Your task to perform on an android device: open app "eBay: The shopping marketplace" (install if not already installed) Image 0: 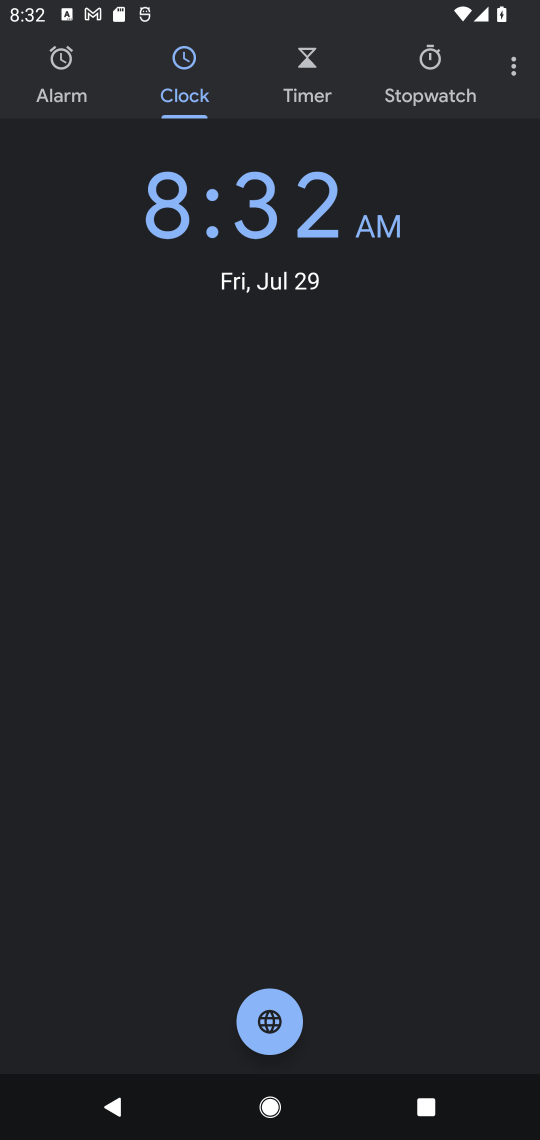
Step 0: press back button
Your task to perform on an android device: open app "eBay: The shopping marketplace" (install if not already installed) Image 1: 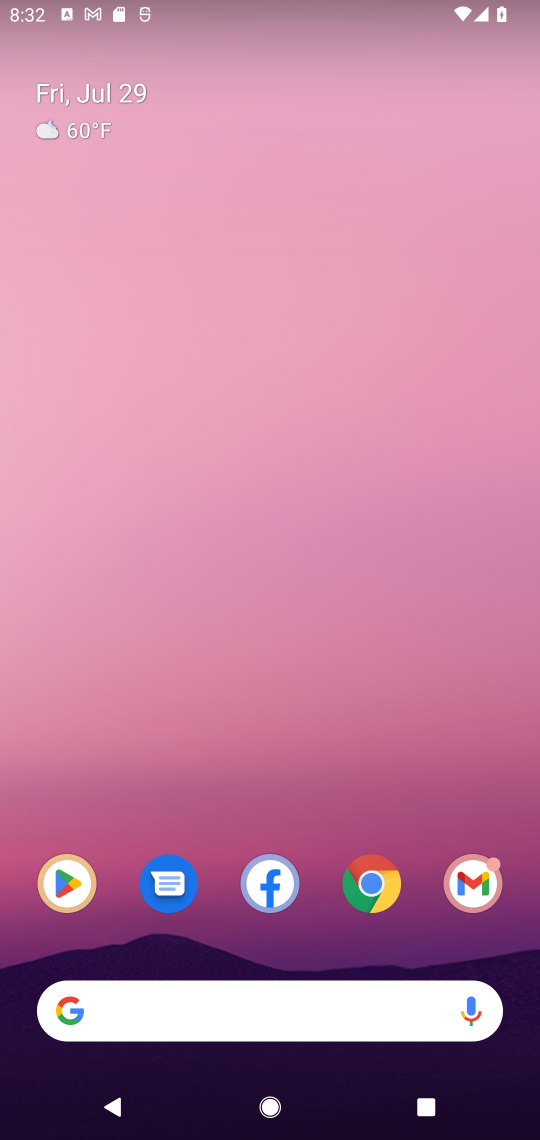
Step 1: click (72, 876)
Your task to perform on an android device: open app "eBay: The shopping marketplace" (install if not already installed) Image 2: 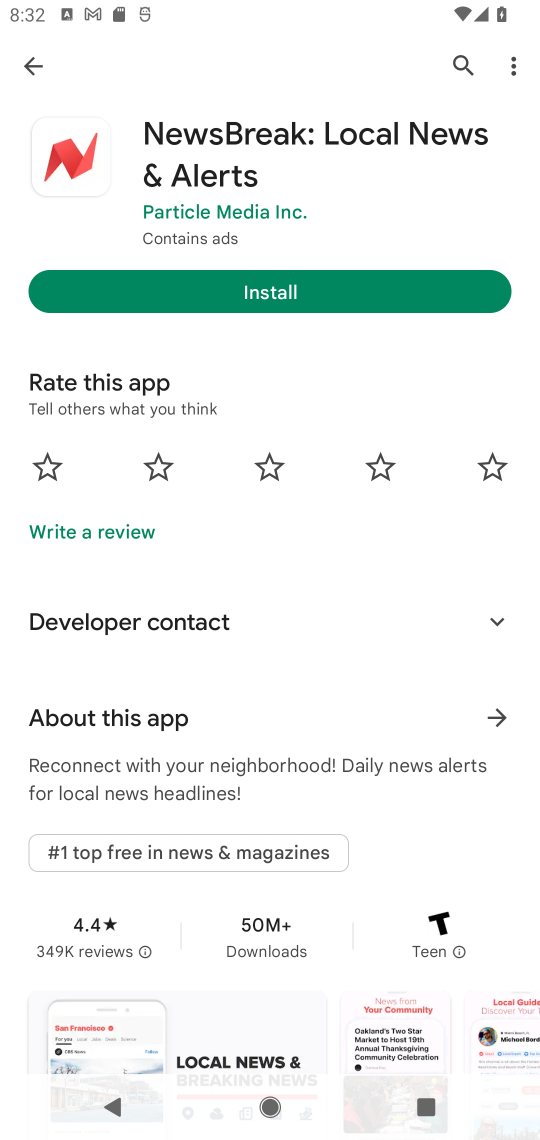
Step 2: click (469, 74)
Your task to perform on an android device: open app "eBay: The shopping marketplace" (install if not already installed) Image 3: 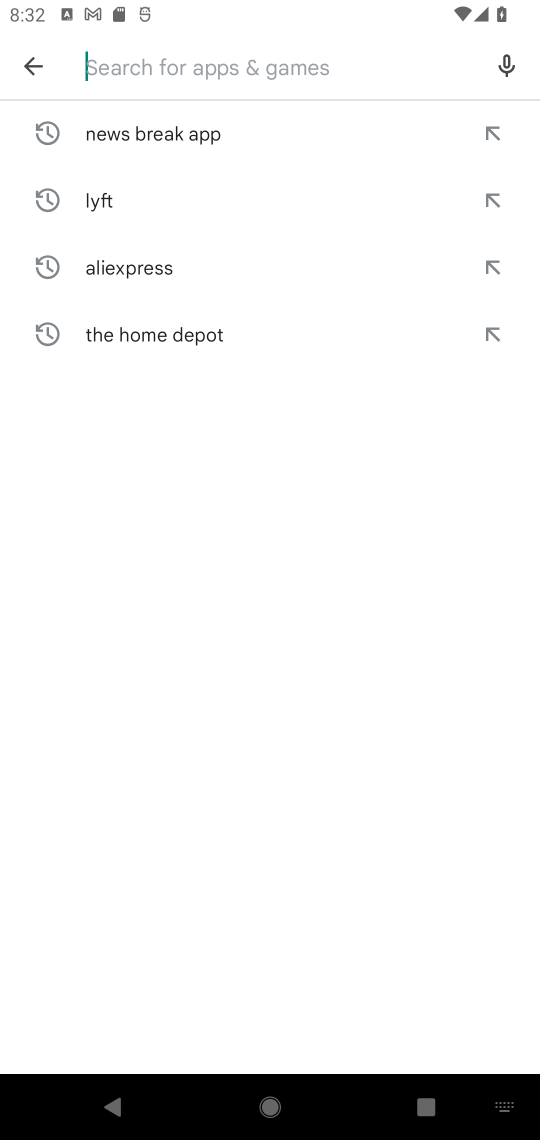
Step 3: click (199, 63)
Your task to perform on an android device: open app "eBay: The shopping marketplace" (install if not already installed) Image 4: 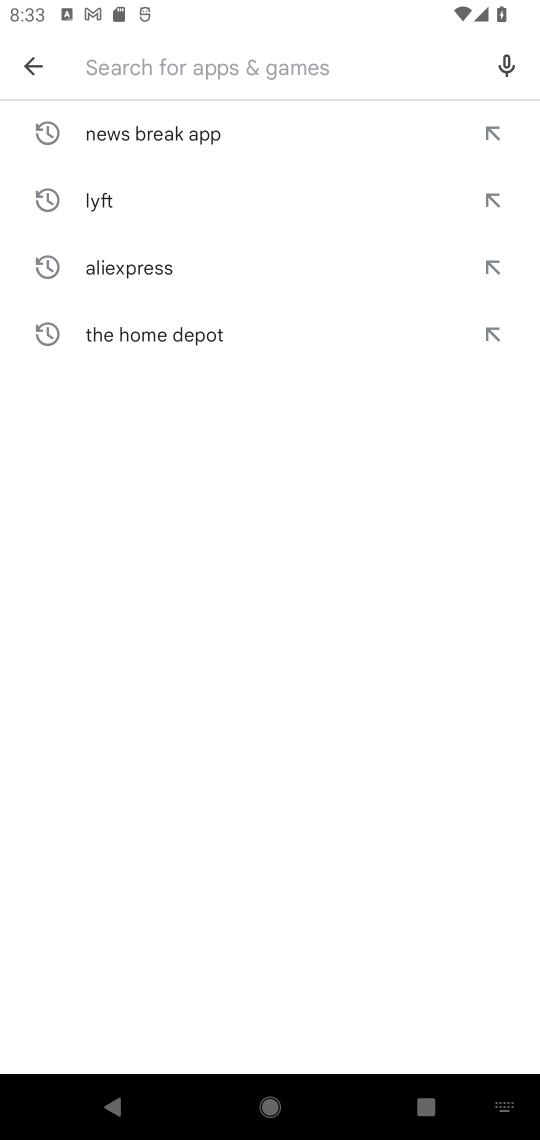
Step 4: click (168, 68)
Your task to perform on an android device: open app "eBay: The shopping marketplace" (install if not already installed) Image 5: 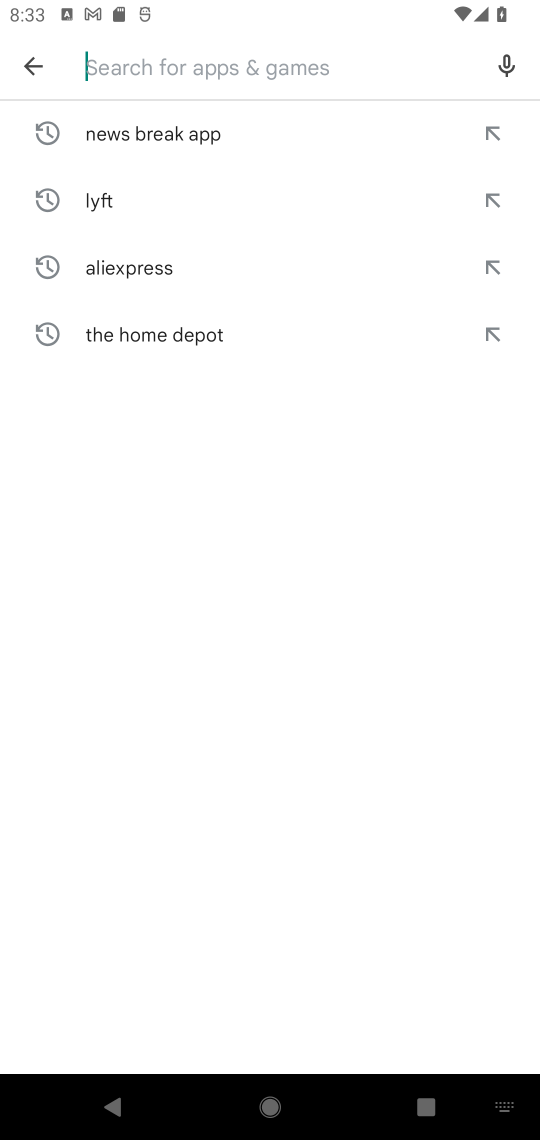
Step 5: type "ebay"
Your task to perform on an android device: open app "eBay: The shopping marketplace" (install if not already installed) Image 6: 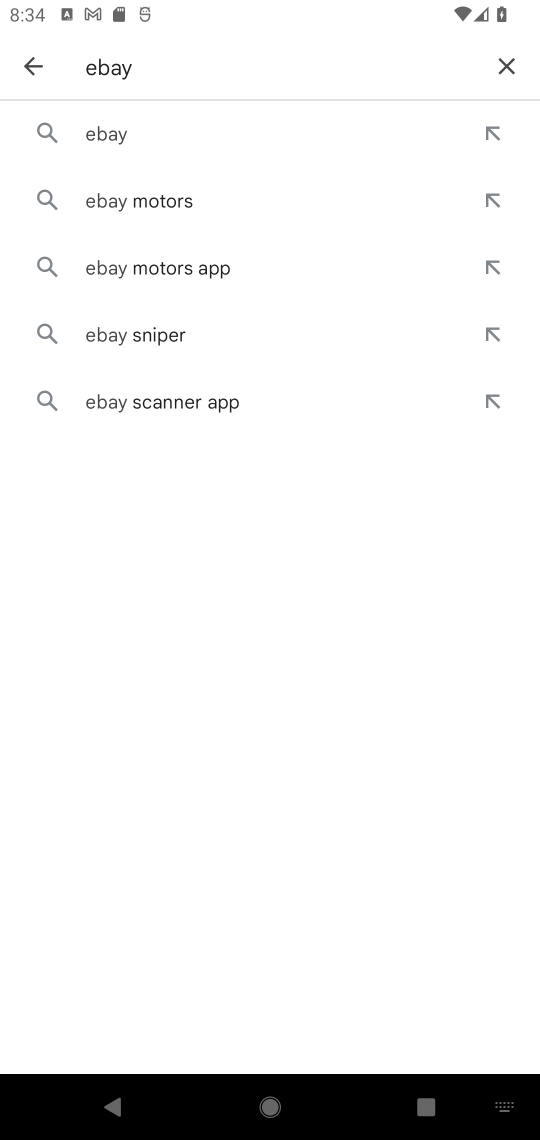
Step 6: click (141, 130)
Your task to perform on an android device: open app "eBay: The shopping marketplace" (install if not already installed) Image 7: 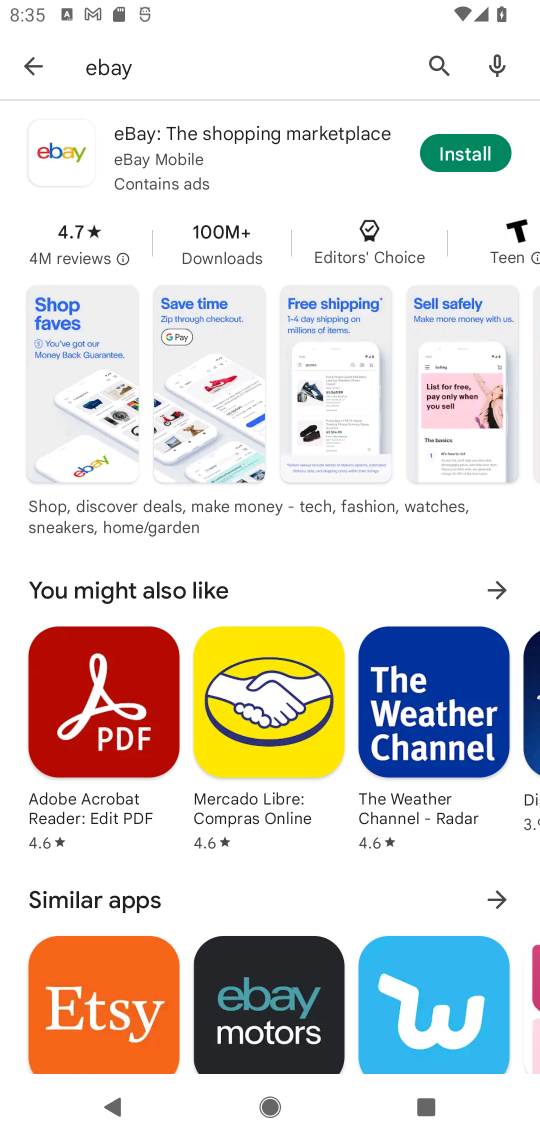
Step 7: click (489, 163)
Your task to perform on an android device: open app "eBay: The shopping marketplace" (install if not already installed) Image 8: 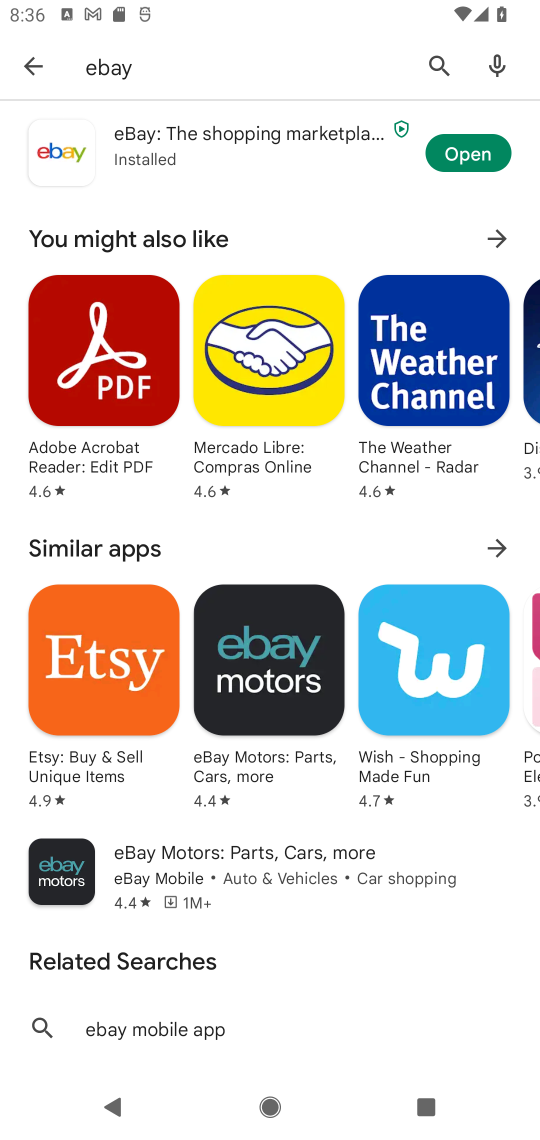
Step 8: task complete